Your task to perform on an android device: Open privacy settings Image 0: 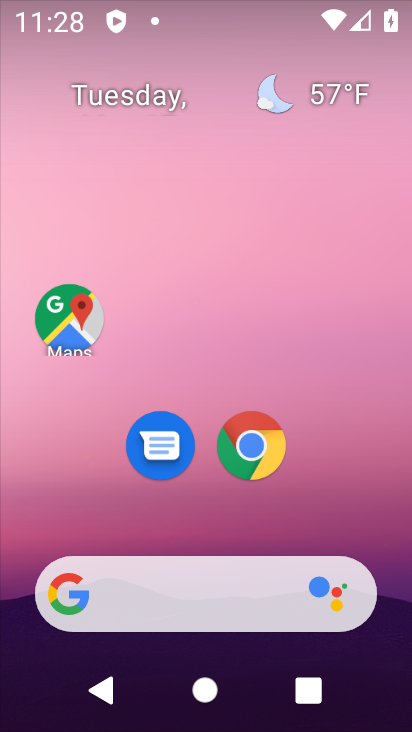
Step 0: drag from (368, 506) to (368, 127)
Your task to perform on an android device: Open privacy settings Image 1: 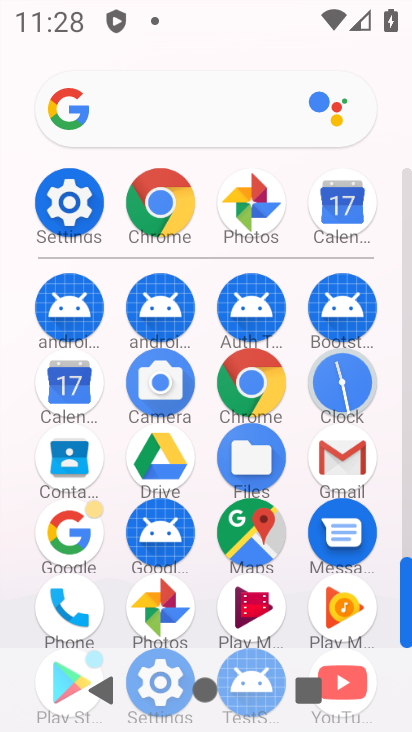
Step 1: click (83, 215)
Your task to perform on an android device: Open privacy settings Image 2: 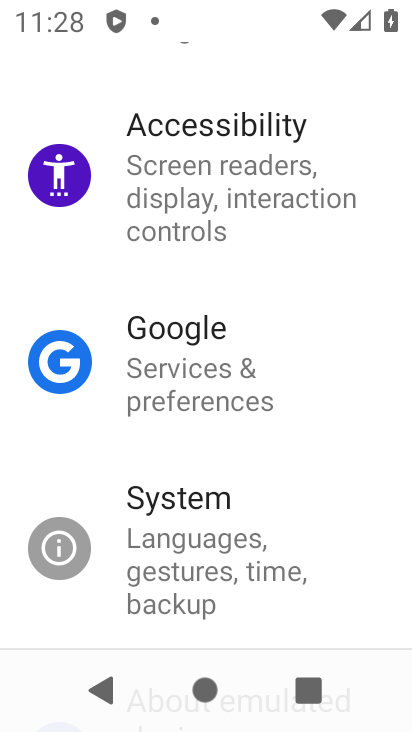
Step 2: drag from (329, 526) to (336, 273)
Your task to perform on an android device: Open privacy settings Image 3: 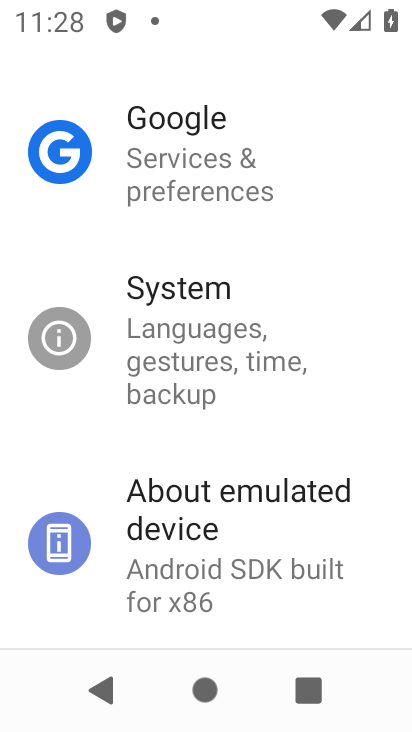
Step 3: drag from (336, 605) to (343, 330)
Your task to perform on an android device: Open privacy settings Image 4: 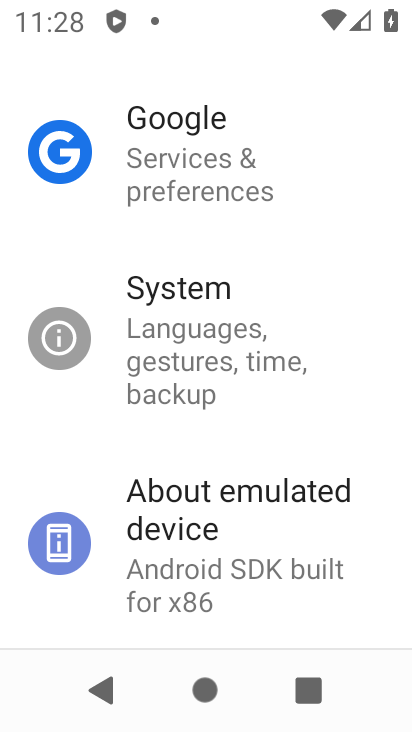
Step 4: drag from (349, 245) to (334, 434)
Your task to perform on an android device: Open privacy settings Image 5: 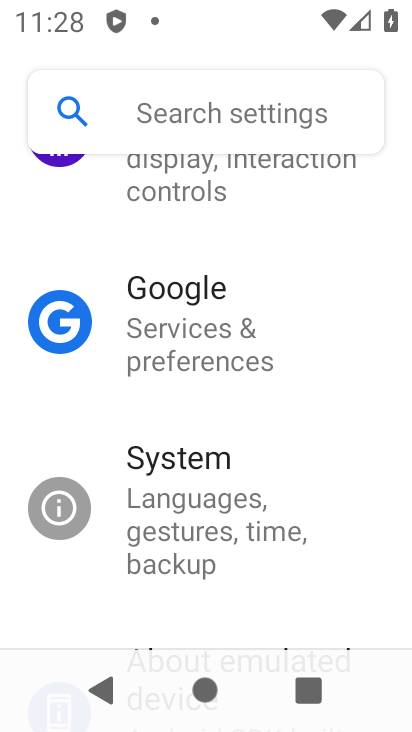
Step 5: drag from (350, 264) to (336, 414)
Your task to perform on an android device: Open privacy settings Image 6: 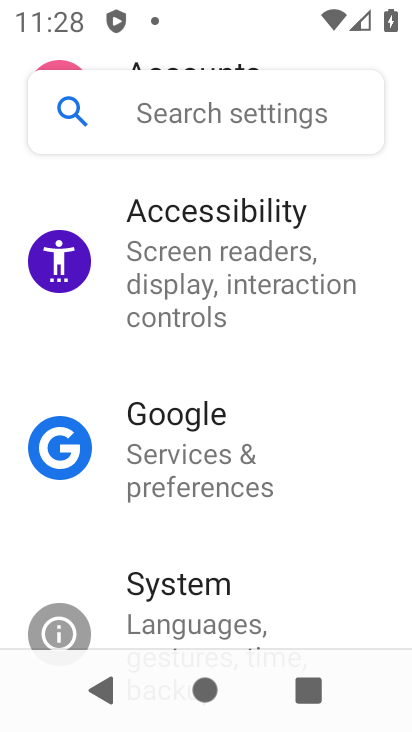
Step 6: drag from (364, 238) to (335, 407)
Your task to perform on an android device: Open privacy settings Image 7: 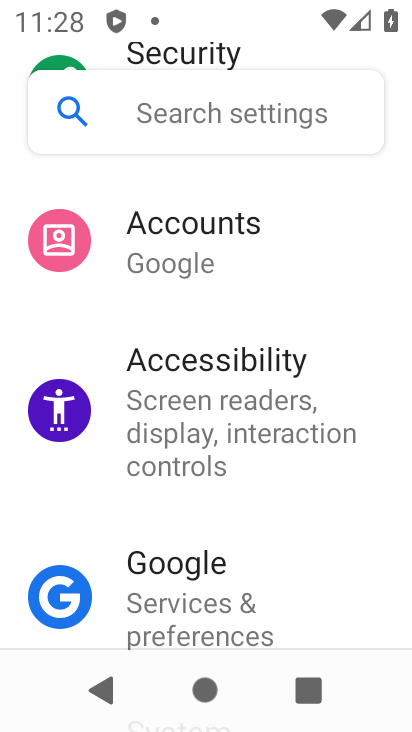
Step 7: drag from (348, 231) to (343, 422)
Your task to perform on an android device: Open privacy settings Image 8: 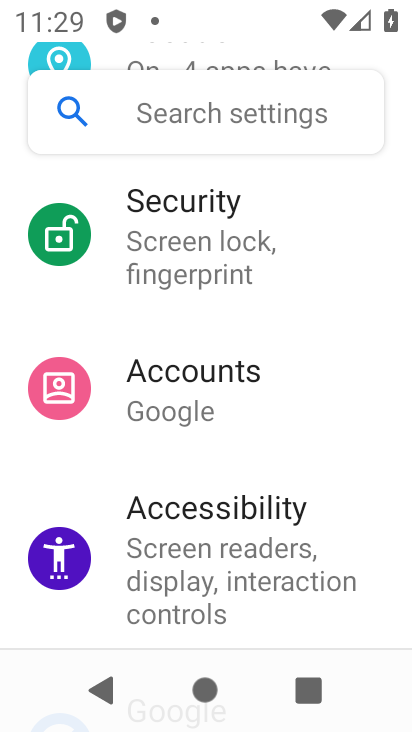
Step 8: drag from (345, 251) to (329, 431)
Your task to perform on an android device: Open privacy settings Image 9: 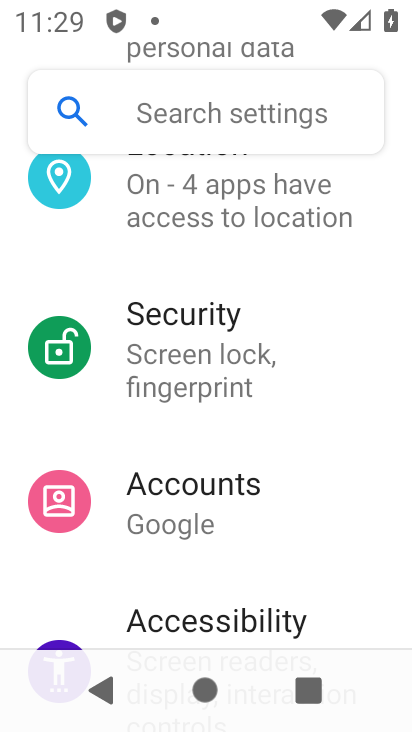
Step 9: drag from (355, 289) to (334, 444)
Your task to perform on an android device: Open privacy settings Image 10: 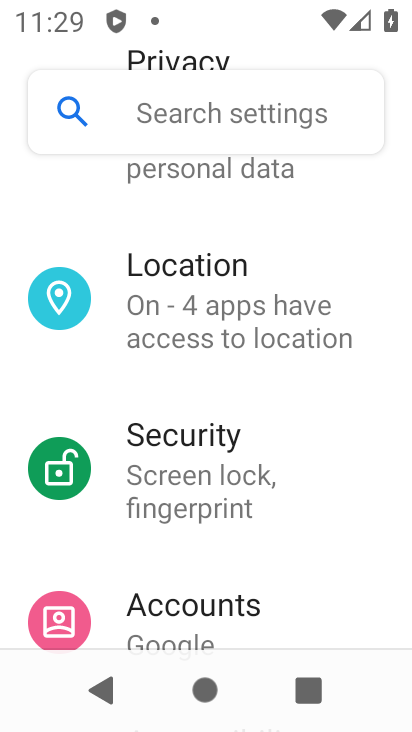
Step 10: drag from (352, 240) to (345, 416)
Your task to perform on an android device: Open privacy settings Image 11: 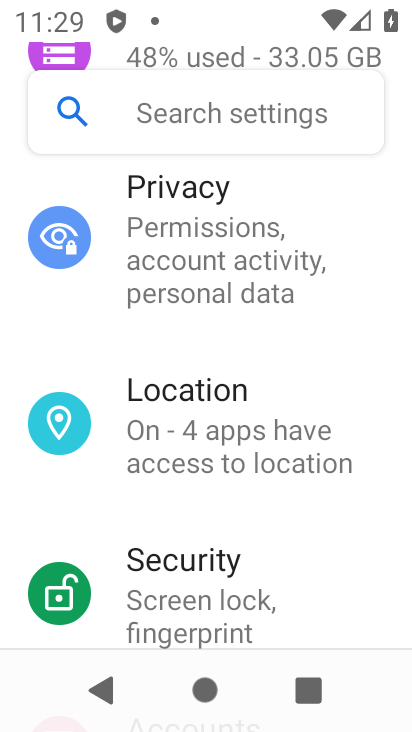
Step 11: drag from (355, 198) to (325, 396)
Your task to perform on an android device: Open privacy settings Image 12: 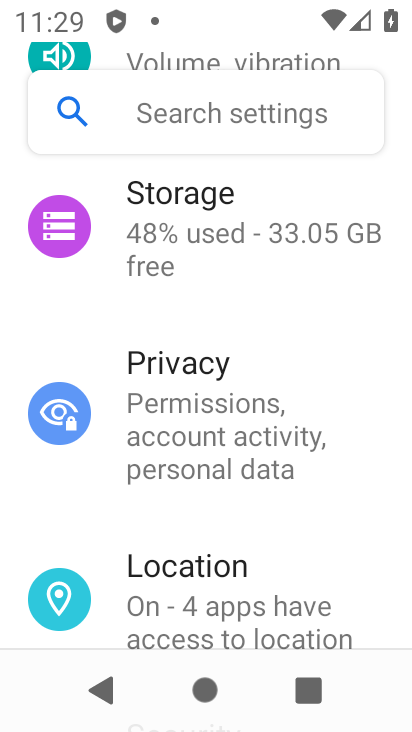
Step 12: drag from (360, 192) to (356, 369)
Your task to perform on an android device: Open privacy settings Image 13: 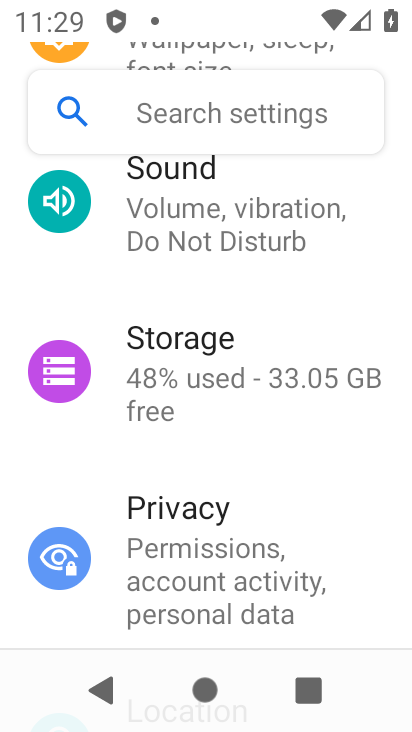
Step 13: drag from (343, 481) to (357, 306)
Your task to perform on an android device: Open privacy settings Image 14: 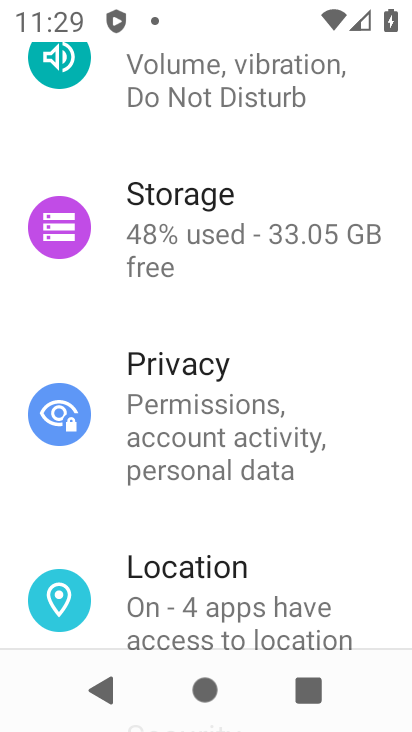
Step 14: click (248, 422)
Your task to perform on an android device: Open privacy settings Image 15: 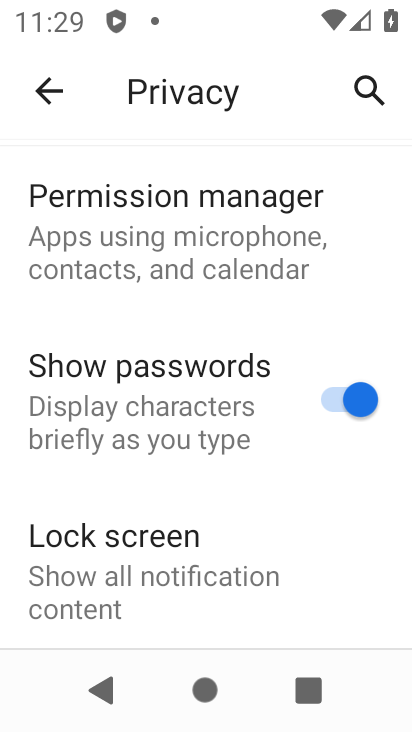
Step 15: drag from (313, 529) to (314, 288)
Your task to perform on an android device: Open privacy settings Image 16: 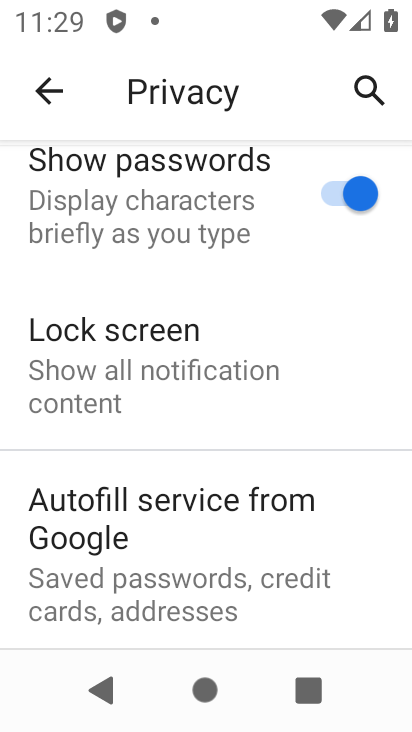
Step 16: drag from (306, 566) to (303, 333)
Your task to perform on an android device: Open privacy settings Image 17: 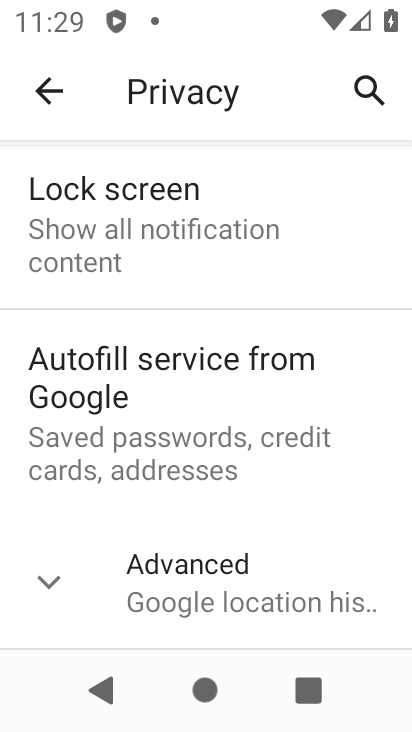
Step 17: click (246, 569)
Your task to perform on an android device: Open privacy settings Image 18: 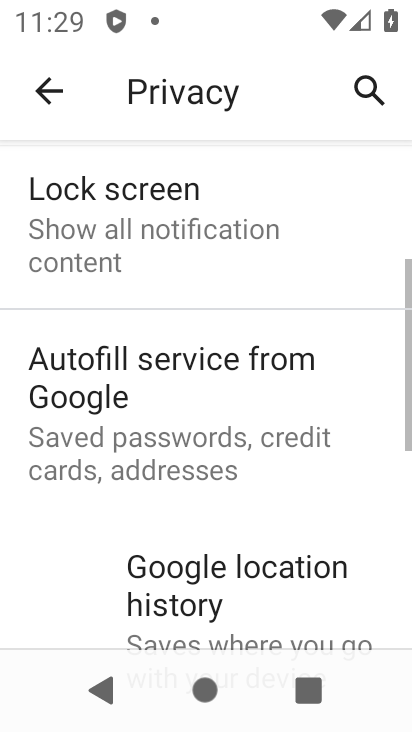
Step 18: task complete